Your task to perform on an android device: find snoozed emails in the gmail app Image 0: 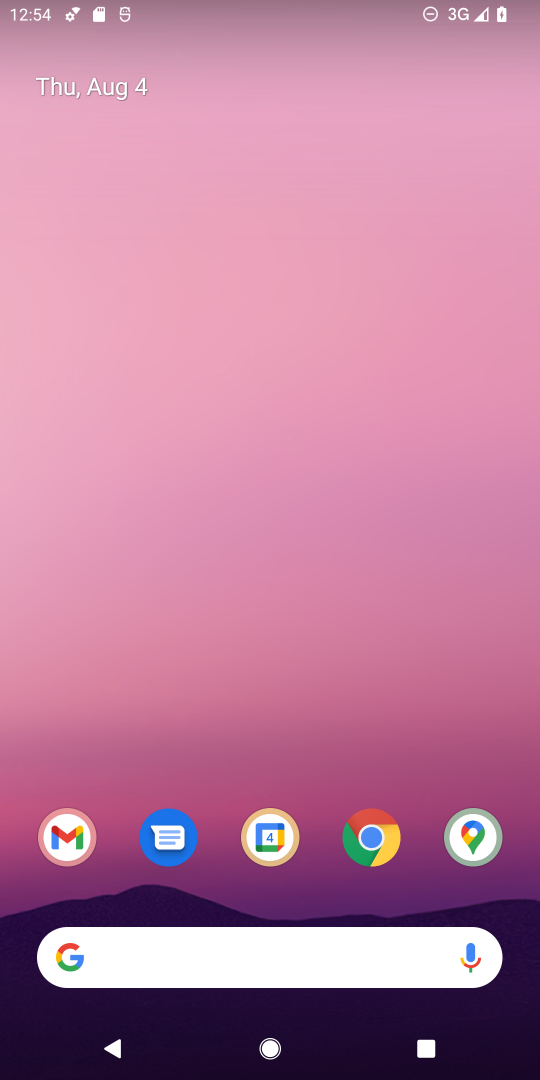
Step 0: drag from (416, 883) to (189, 64)
Your task to perform on an android device: find snoozed emails in the gmail app Image 1: 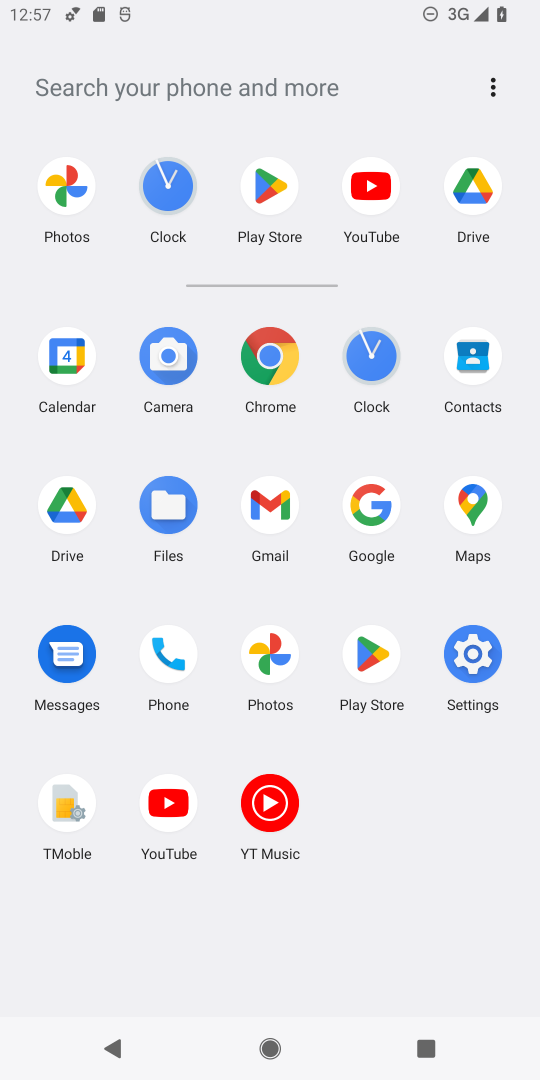
Step 1: click (264, 520)
Your task to perform on an android device: find snoozed emails in the gmail app Image 2: 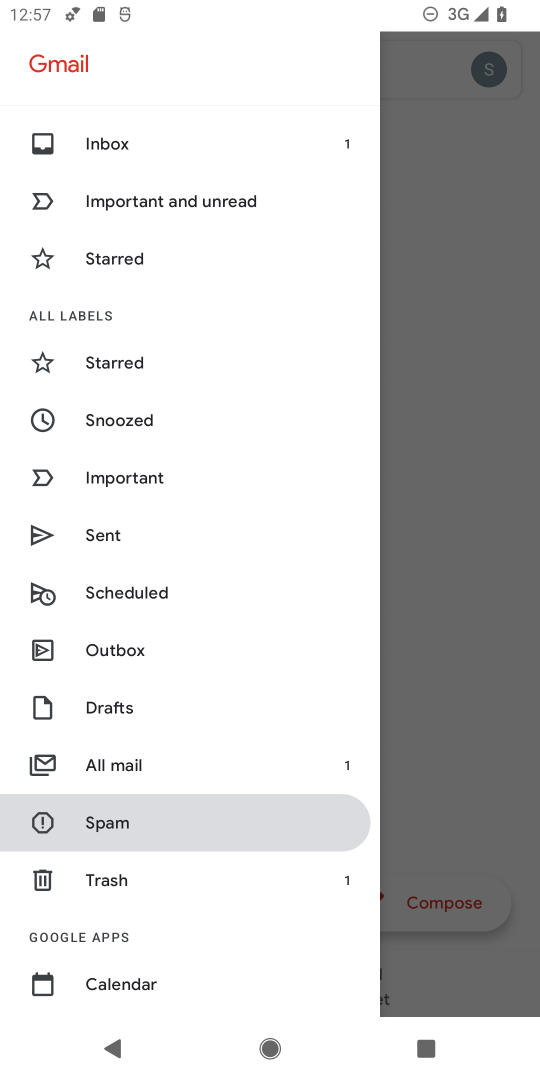
Step 2: click (122, 144)
Your task to perform on an android device: find snoozed emails in the gmail app Image 3: 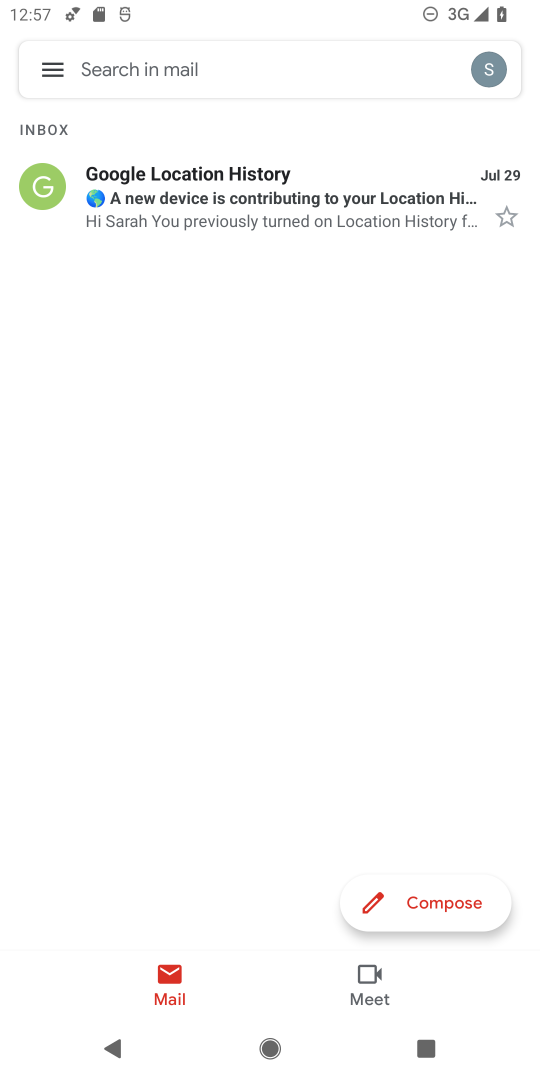
Step 3: task complete